Your task to perform on an android device: Open the web browser Image 0: 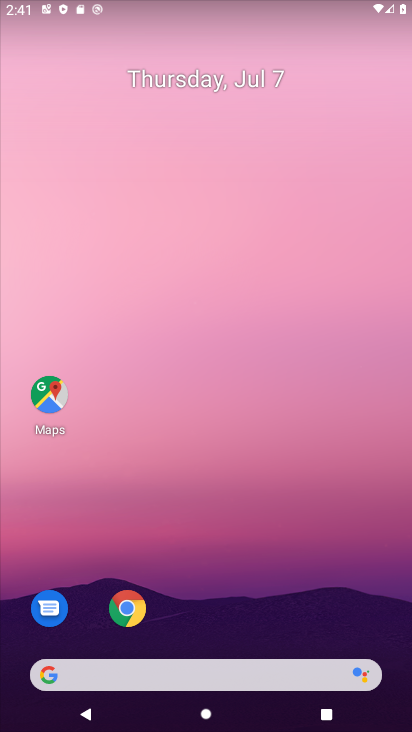
Step 0: click (127, 612)
Your task to perform on an android device: Open the web browser Image 1: 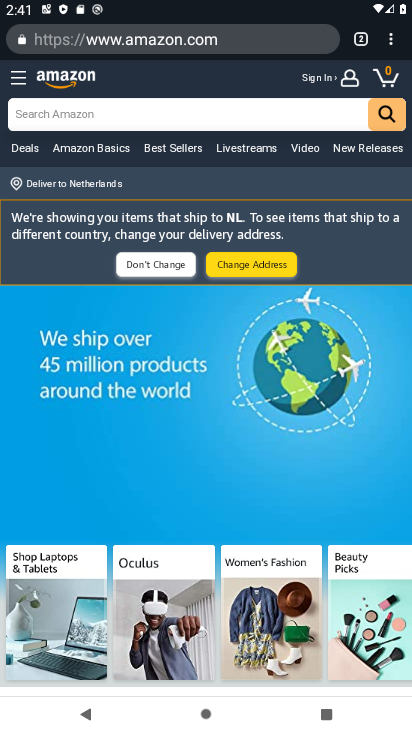
Step 1: task complete